Your task to perform on an android device: move an email to a new category in the gmail app Image 0: 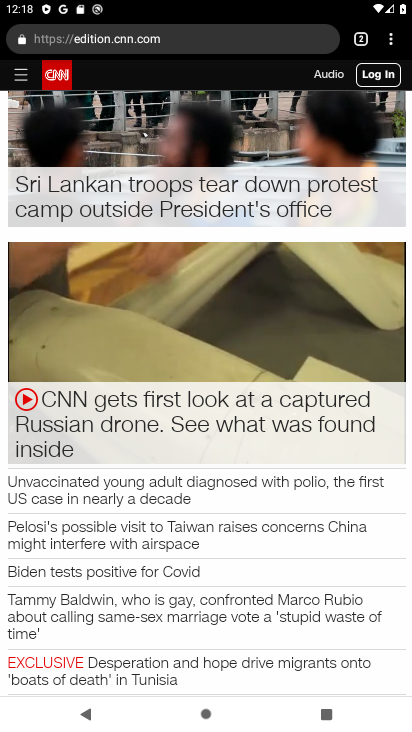
Step 0: press home button
Your task to perform on an android device: move an email to a new category in the gmail app Image 1: 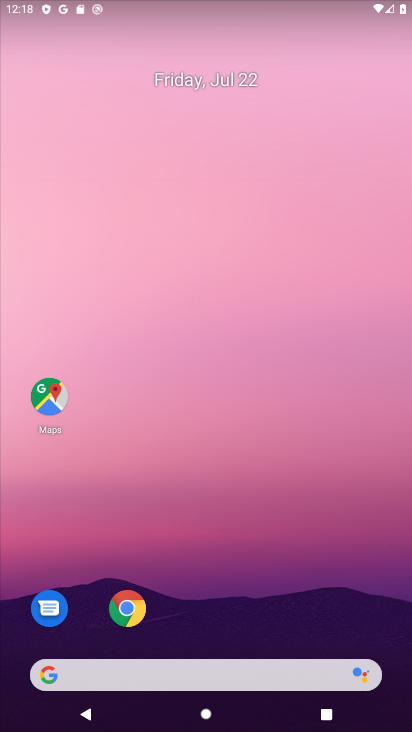
Step 1: drag from (226, 617) to (295, 86)
Your task to perform on an android device: move an email to a new category in the gmail app Image 2: 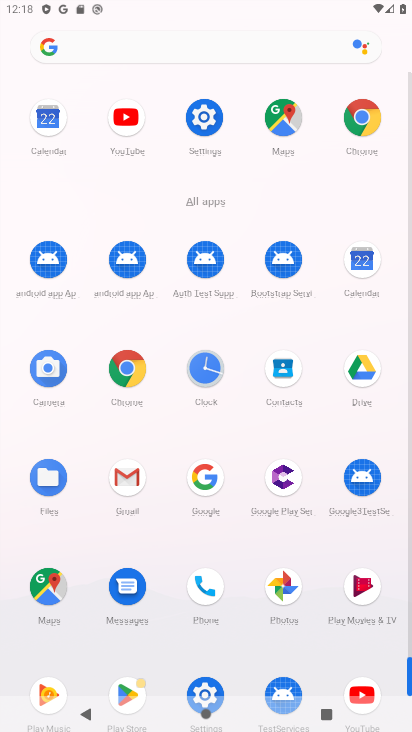
Step 2: click (125, 479)
Your task to perform on an android device: move an email to a new category in the gmail app Image 3: 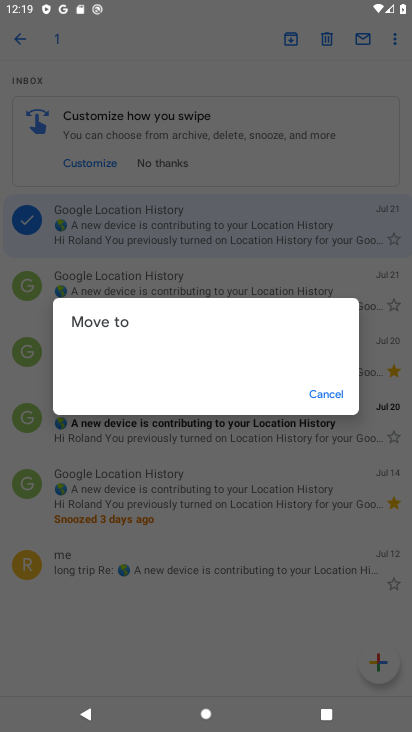
Step 3: click (321, 390)
Your task to perform on an android device: move an email to a new category in the gmail app Image 4: 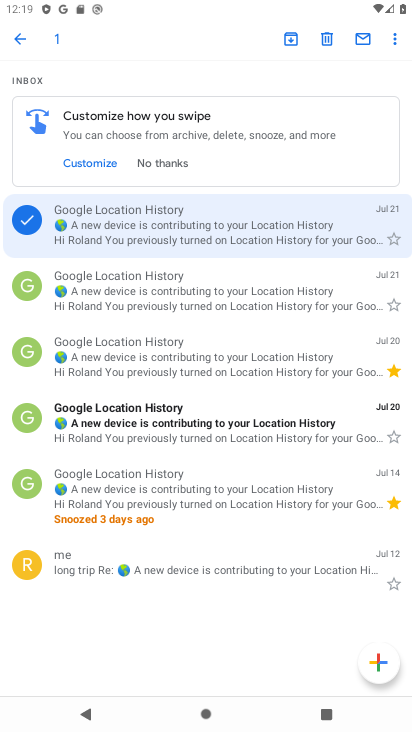
Step 4: click (15, 34)
Your task to perform on an android device: move an email to a new category in the gmail app Image 5: 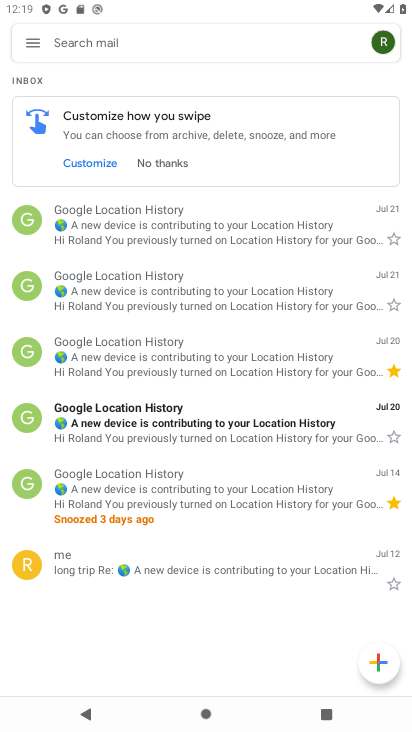
Step 5: click (23, 279)
Your task to perform on an android device: move an email to a new category in the gmail app Image 6: 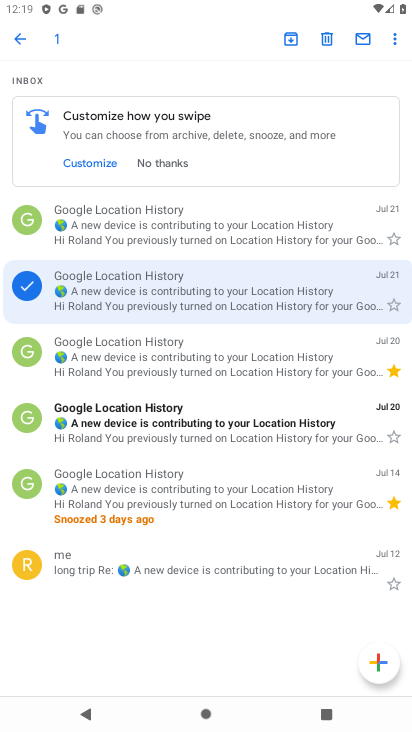
Step 6: click (390, 41)
Your task to perform on an android device: move an email to a new category in the gmail app Image 7: 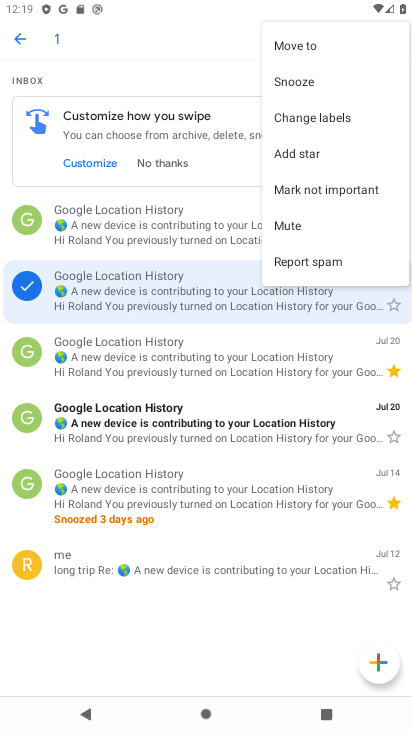
Step 7: task complete